Your task to perform on an android device: Go to ESPN.com Image 0: 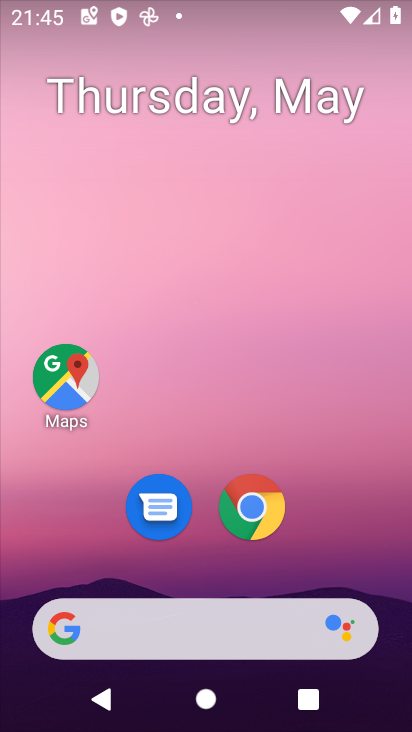
Step 0: drag from (249, 670) to (222, 186)
Your task to perform on an android device: Go to ESPN.com Image 1: 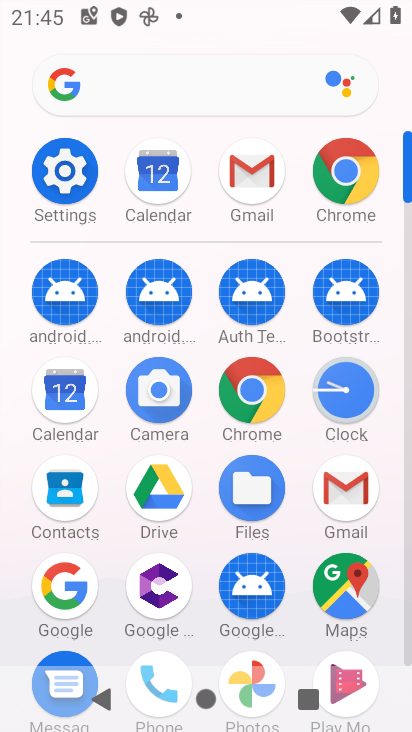
Step 1: click (329, 175)
Your task to perform on an android device: Go to ESPN.com Image 2: 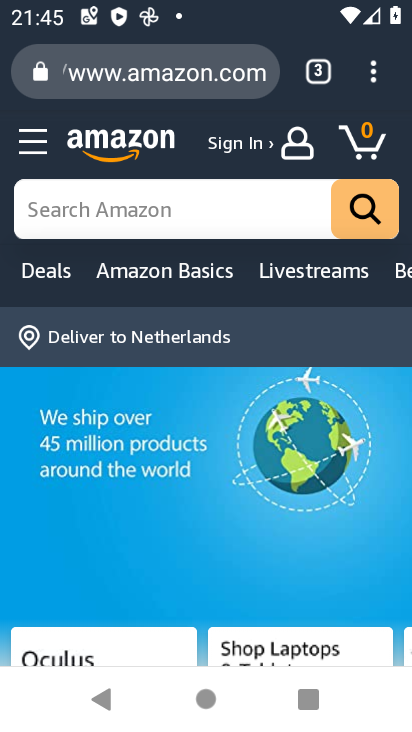
Step 2: click (323, 76)
Your task to perform on an android device: Go to ESPN.com Image 3: 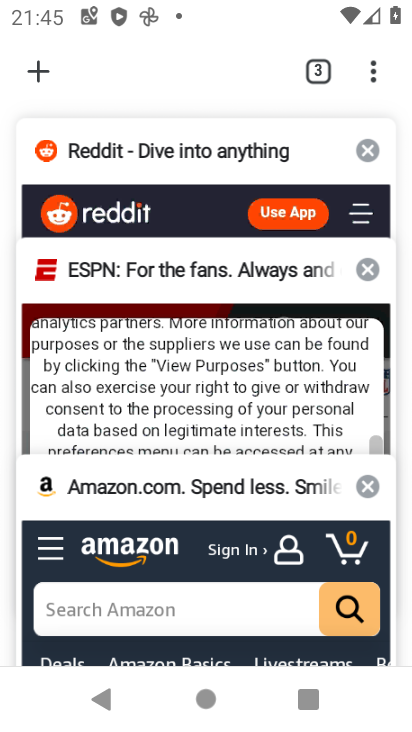
Step 3: click (39, 74)
Your task to perform on an android device: Go to ESPN.com Image 4: 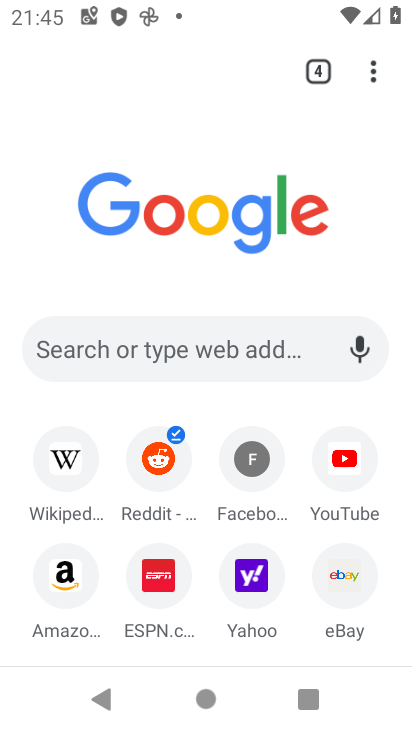
Step 4: click (180, 586)
Your task to perform on an android device: Go to ESPN.com Image 5: 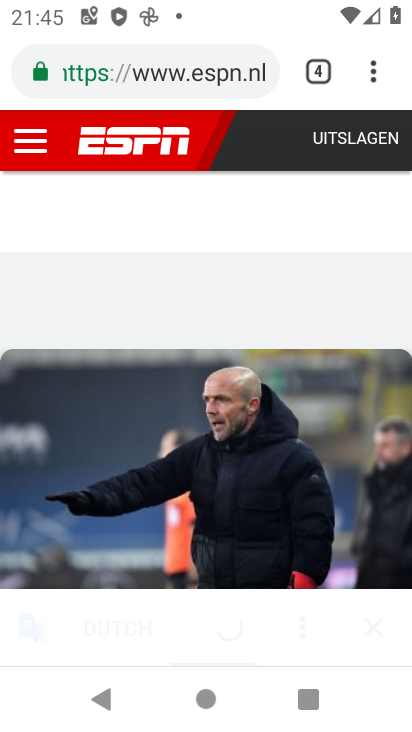
Step 5: task complete